Your task to perform on an android device: turn off smart reply in the gmail app Image 0: 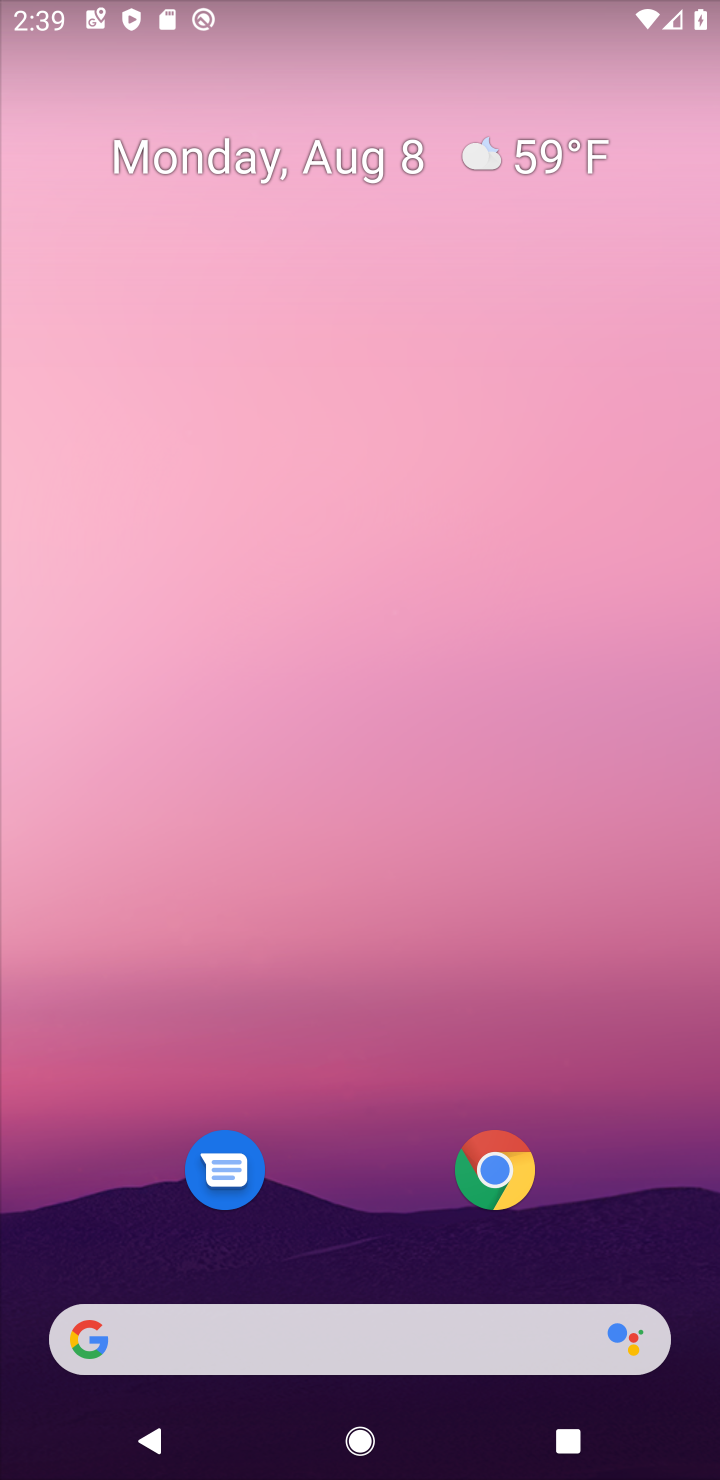
Step 0: drag from (356, 1003) to (378, 442)
Your task to perform on an android device: turn off smart reply in the gmail app Image 1: 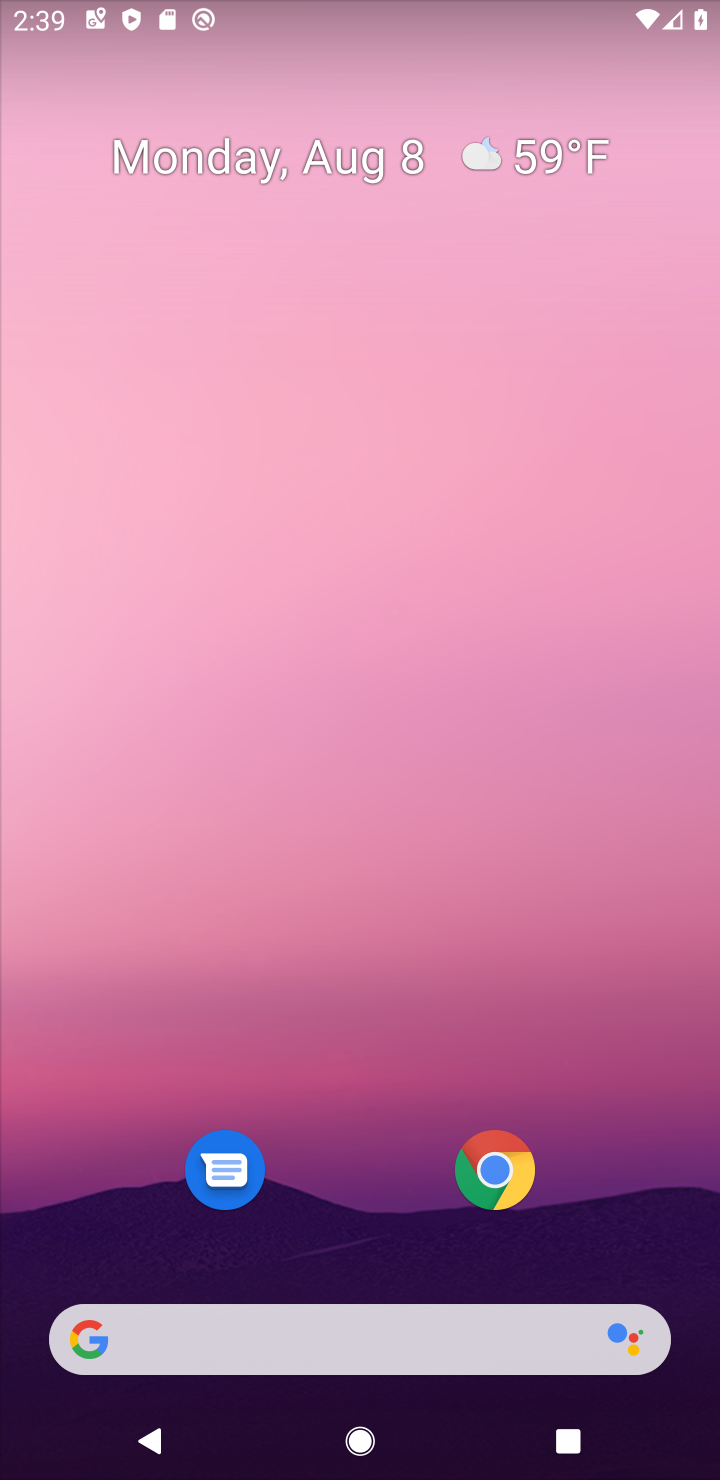
Step 1: drag from (328, 335) to (328, 52)
Your task to perform on an android device: turn off smart reply in the gmail app Image 2: 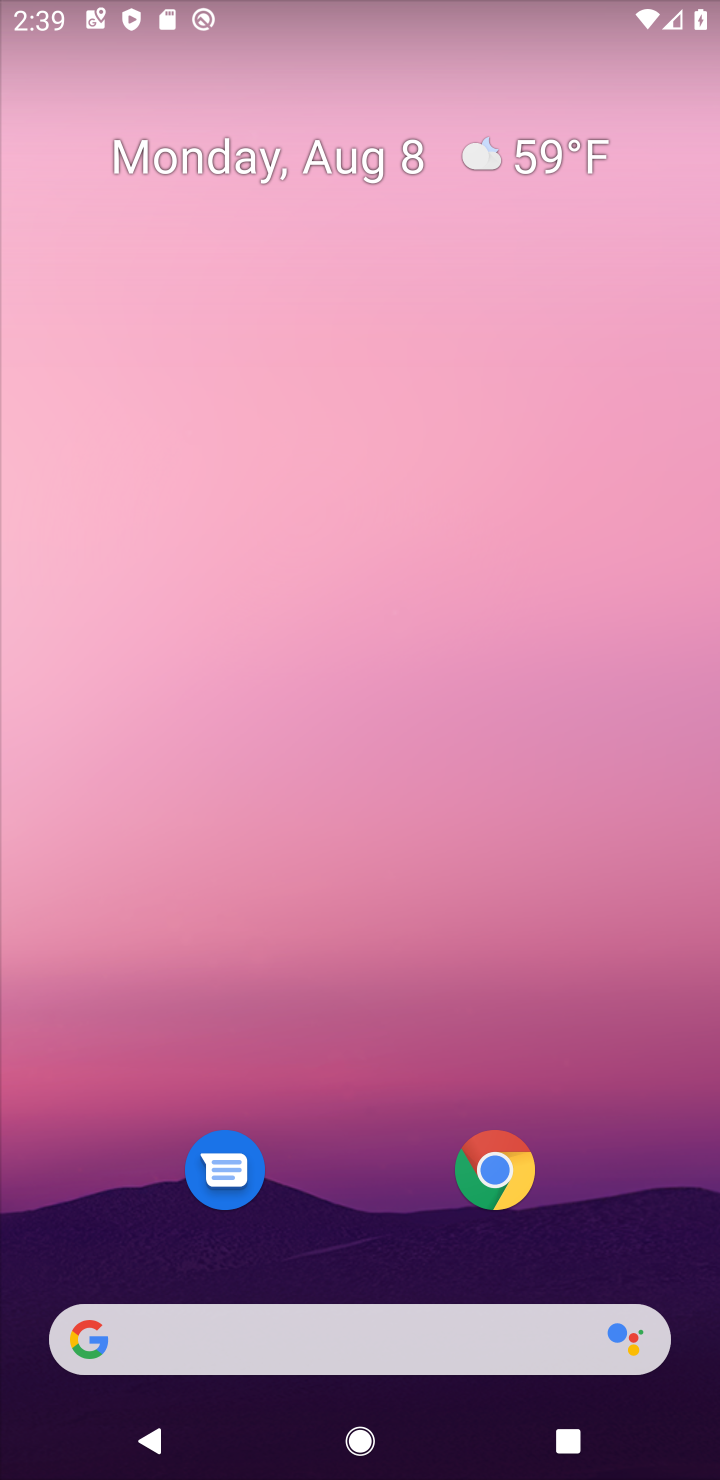
Step 2: drag from (365, 1094) to (436, 235)
Your task to perform on an android device: turn off smart reply in the gmail app Image 3: 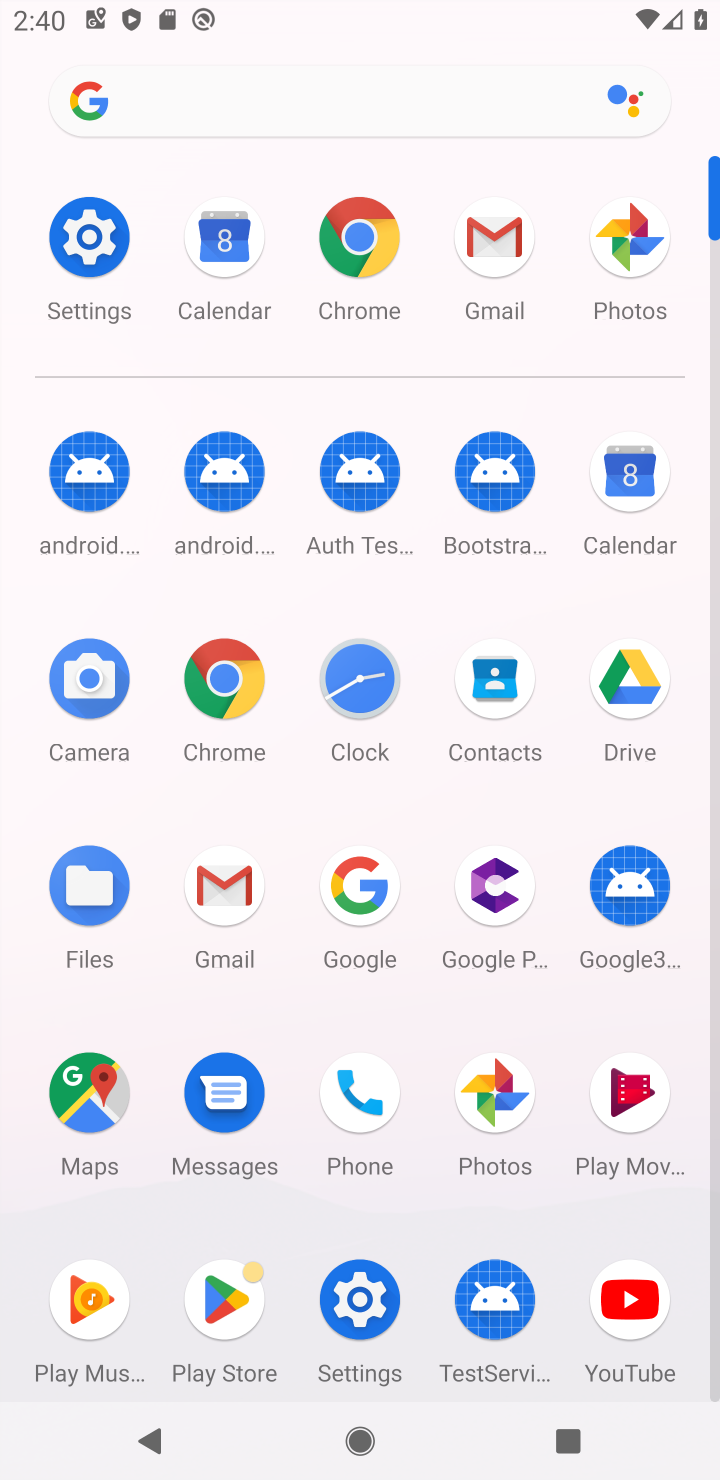
Step 3: click (512, 234)
Your task to perform on an android device: turn off smart reply in the gmail app Image 4: 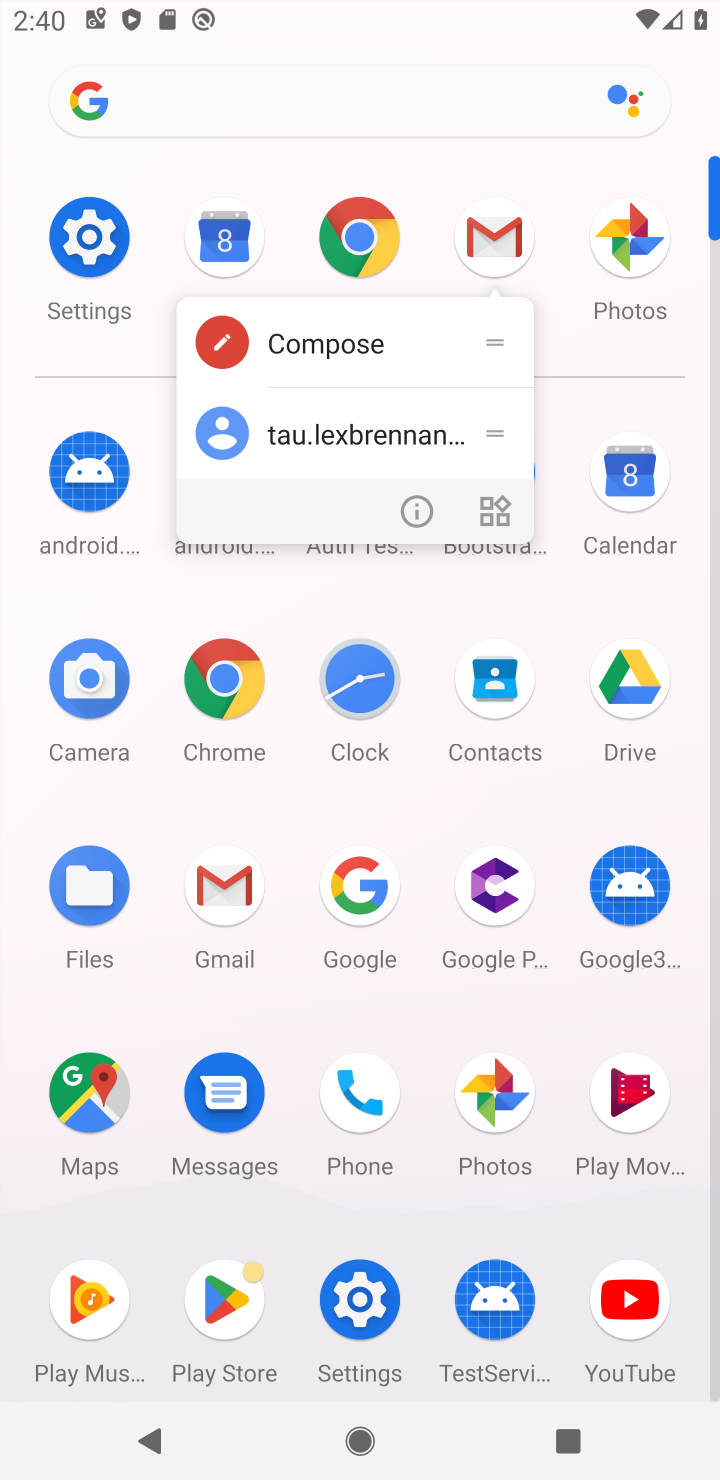
Step 4: click (512, 234)
Your task to perform on an android device: turn off smart reply in the gmail app Image 5: 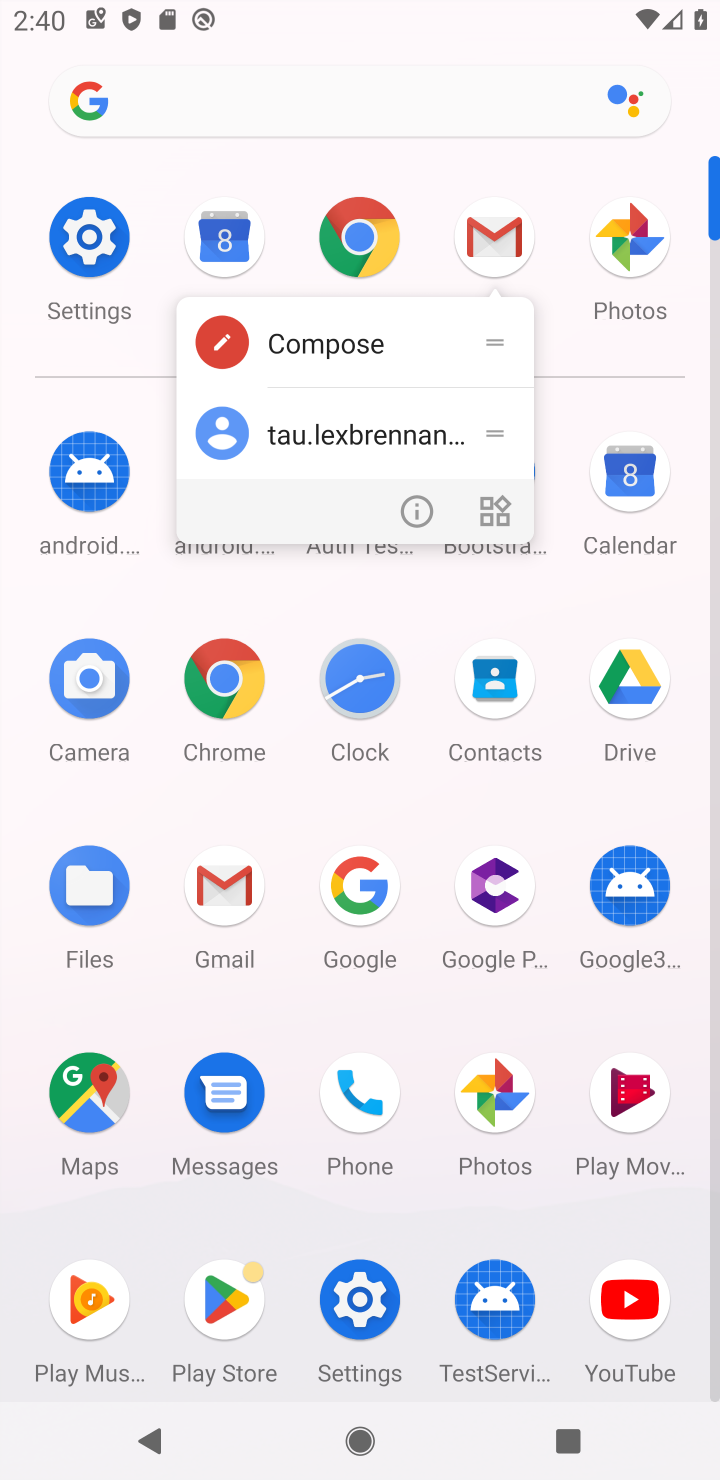
Step 5: click (512, 234)
Your task to perform on an android device: turn off smart reply in the gmail app Image 6: 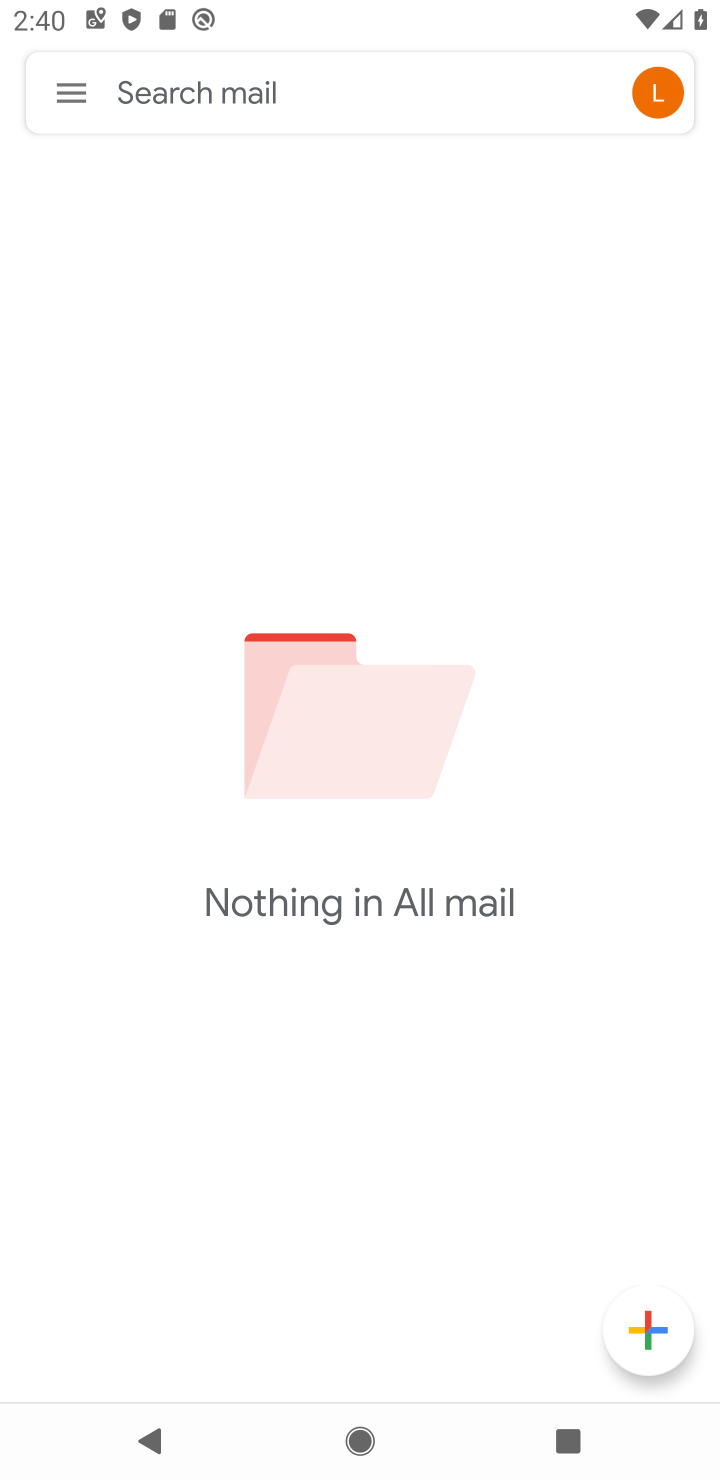
Step 6: click (70, 84)
Your task to perform on an android device: turn off smart reply in the gmail app Image 7: 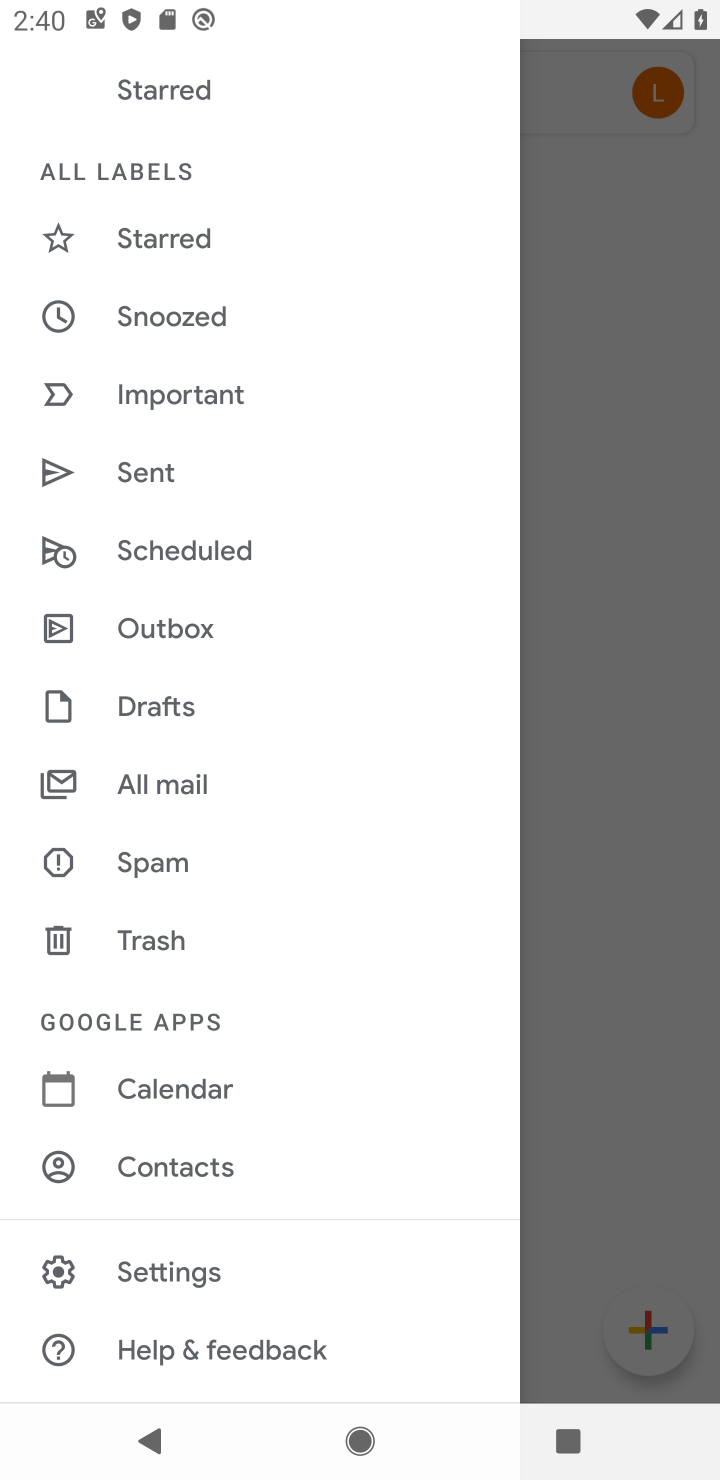
Step 7: click (209, 1269)
Your task to perform on an android device: turn off smart reply in the gmail app Image 8: 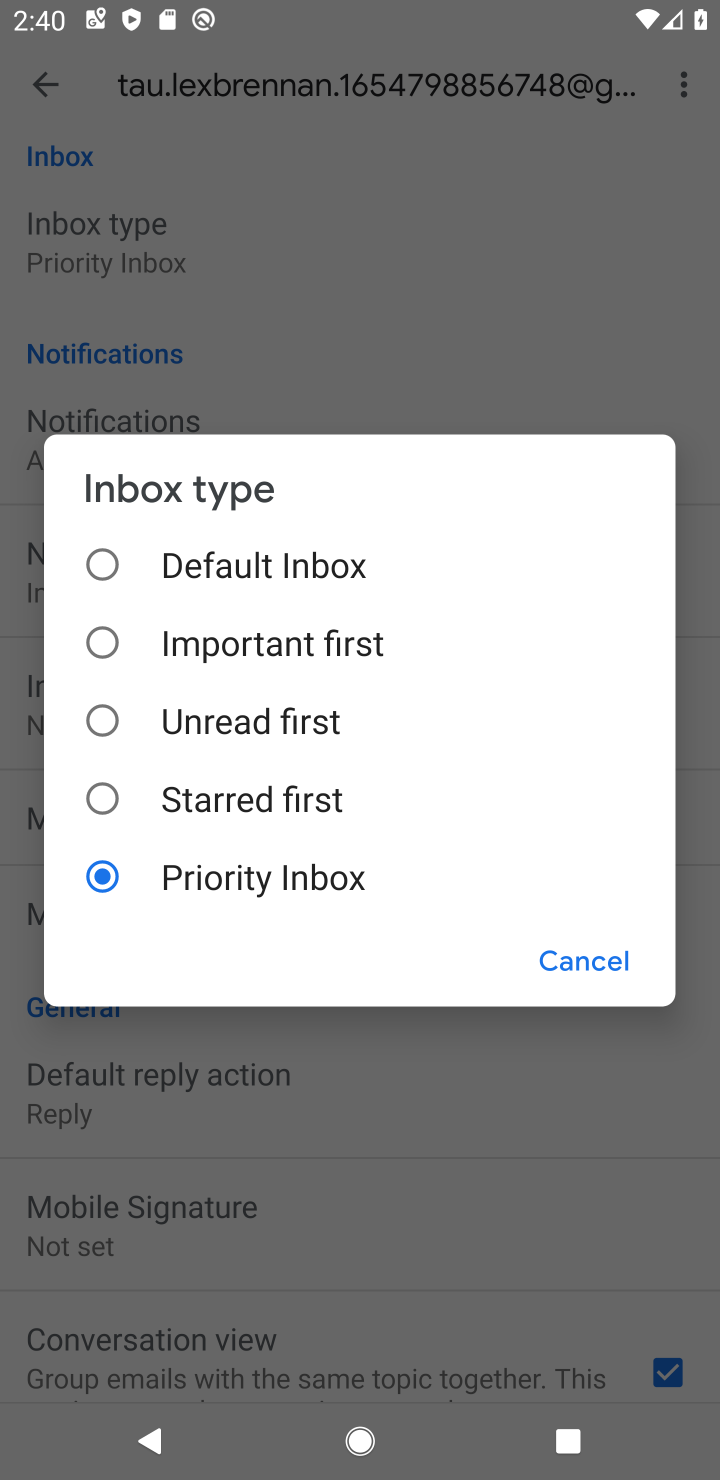
Step 8: click (591, 956)
Your task to perform on an android device: turn off smart reply in the gmail app Image 9: 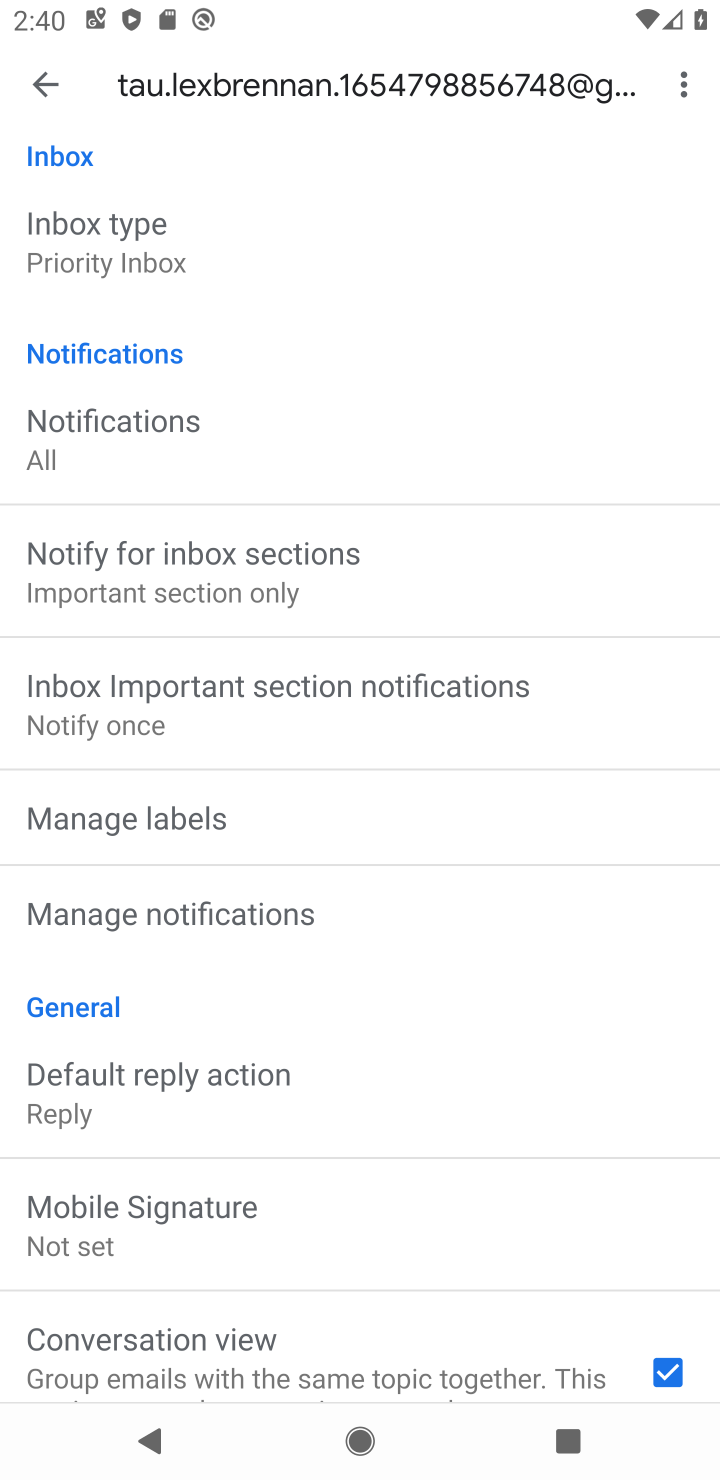
Step 9: task complete